Your task to perform on an android device: open app "Facebook Messenger" Image 0: 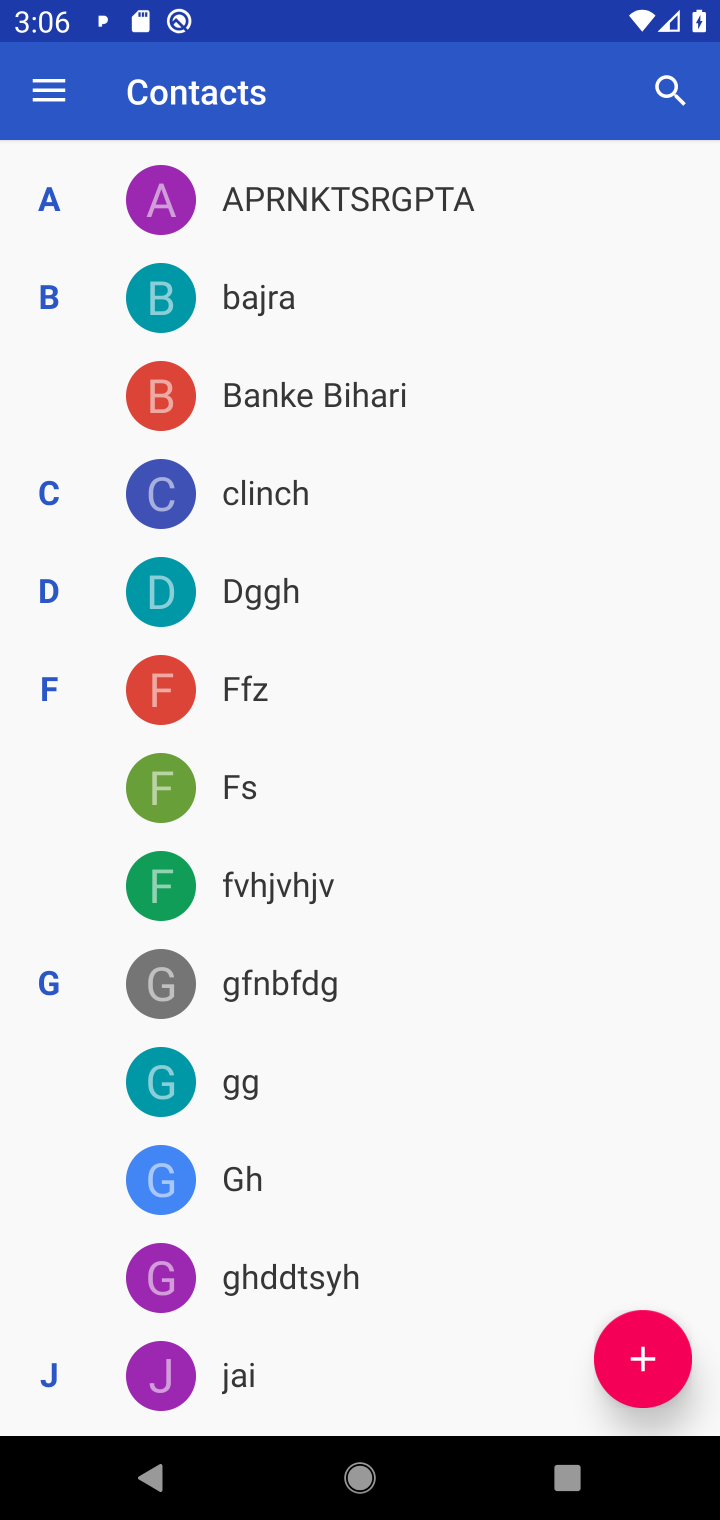
Step 0: press home button
Your task to perform on an android device: open app "Facebook Messenger" Image 1: 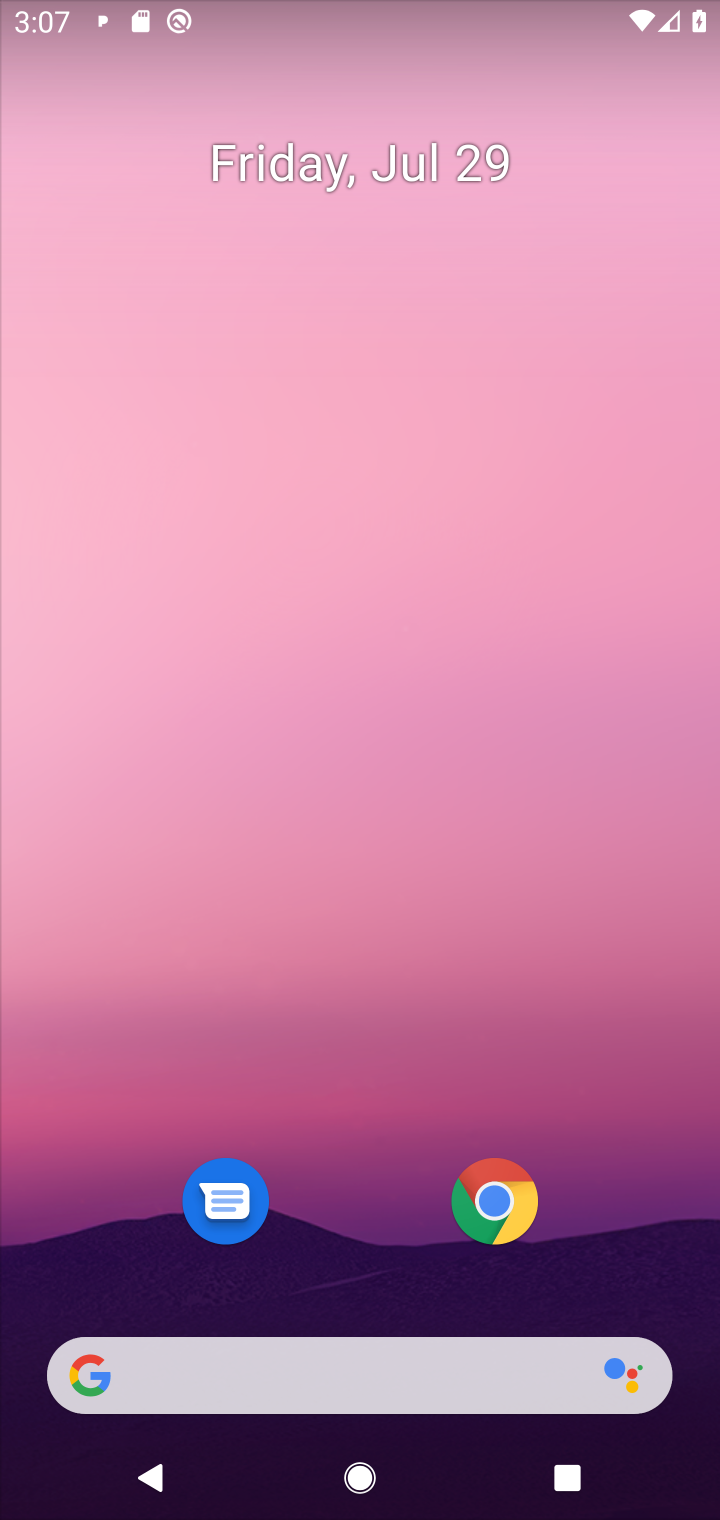
Step 1: click (676, 1298)
Your task to perform on an android device: open app "Facebook Messenger" Image 2: 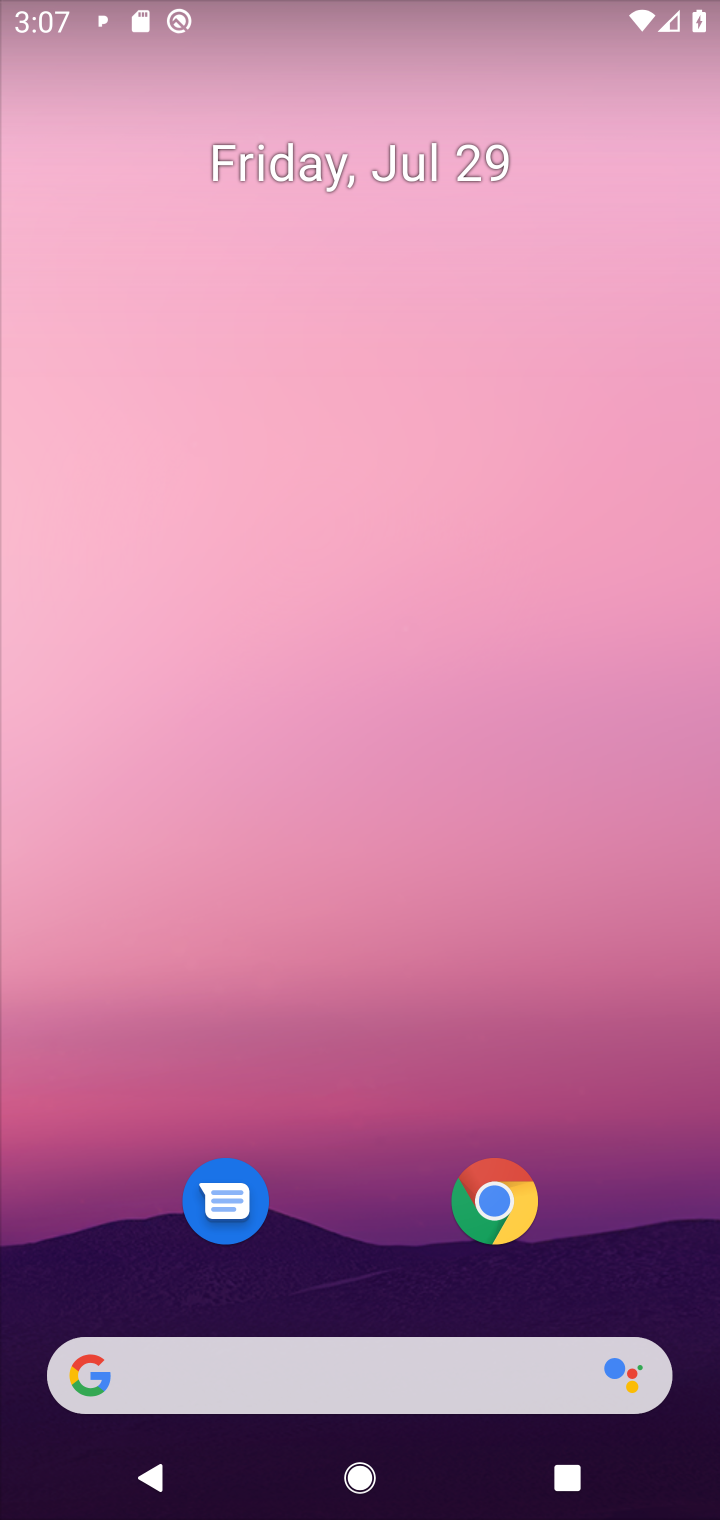
Step 2: click (581, 446)
Your task to perform on an android device: open app "Facebook Messenger" Image 3: 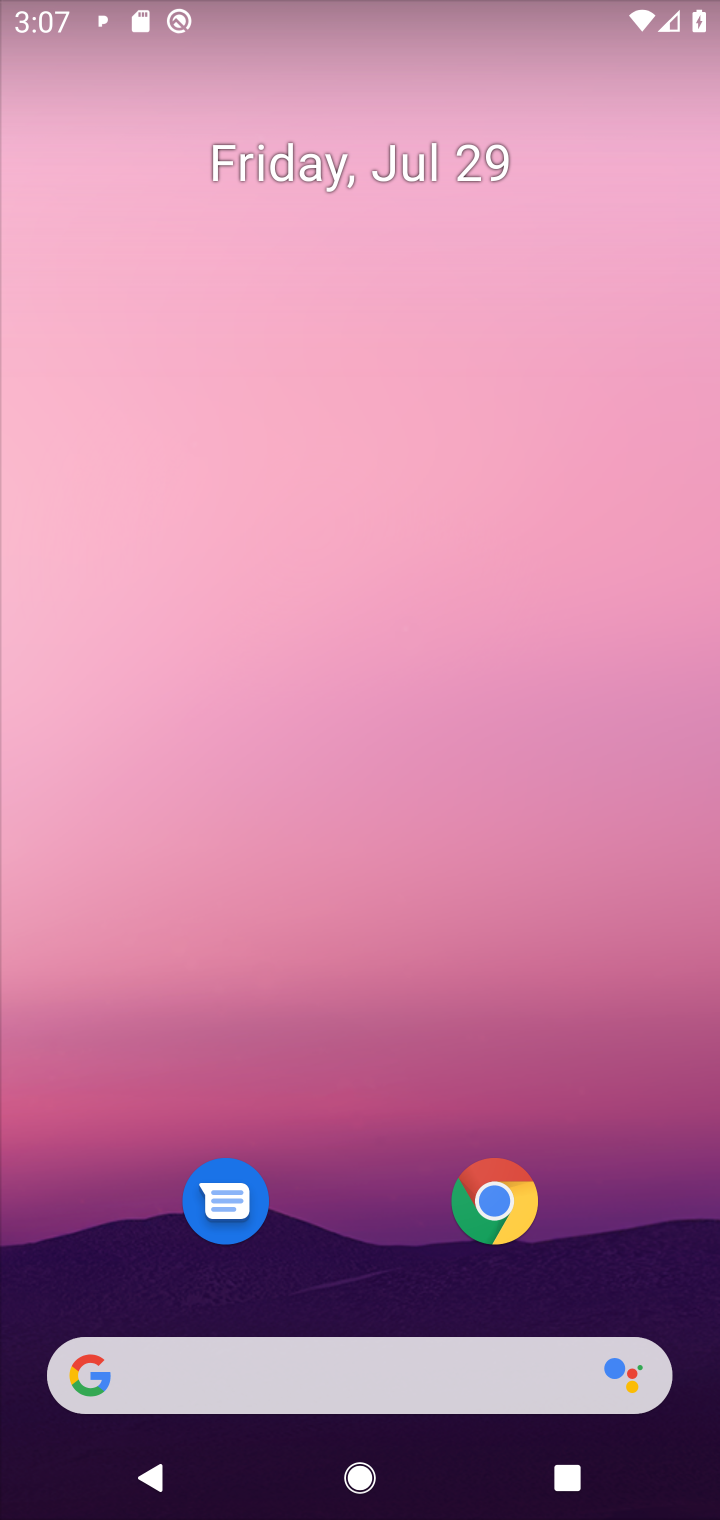
Step 3: drag from (623, 1176) to (522, 999)
Your task to perform on an android device: open app "Facebook Messenger" Image 4: 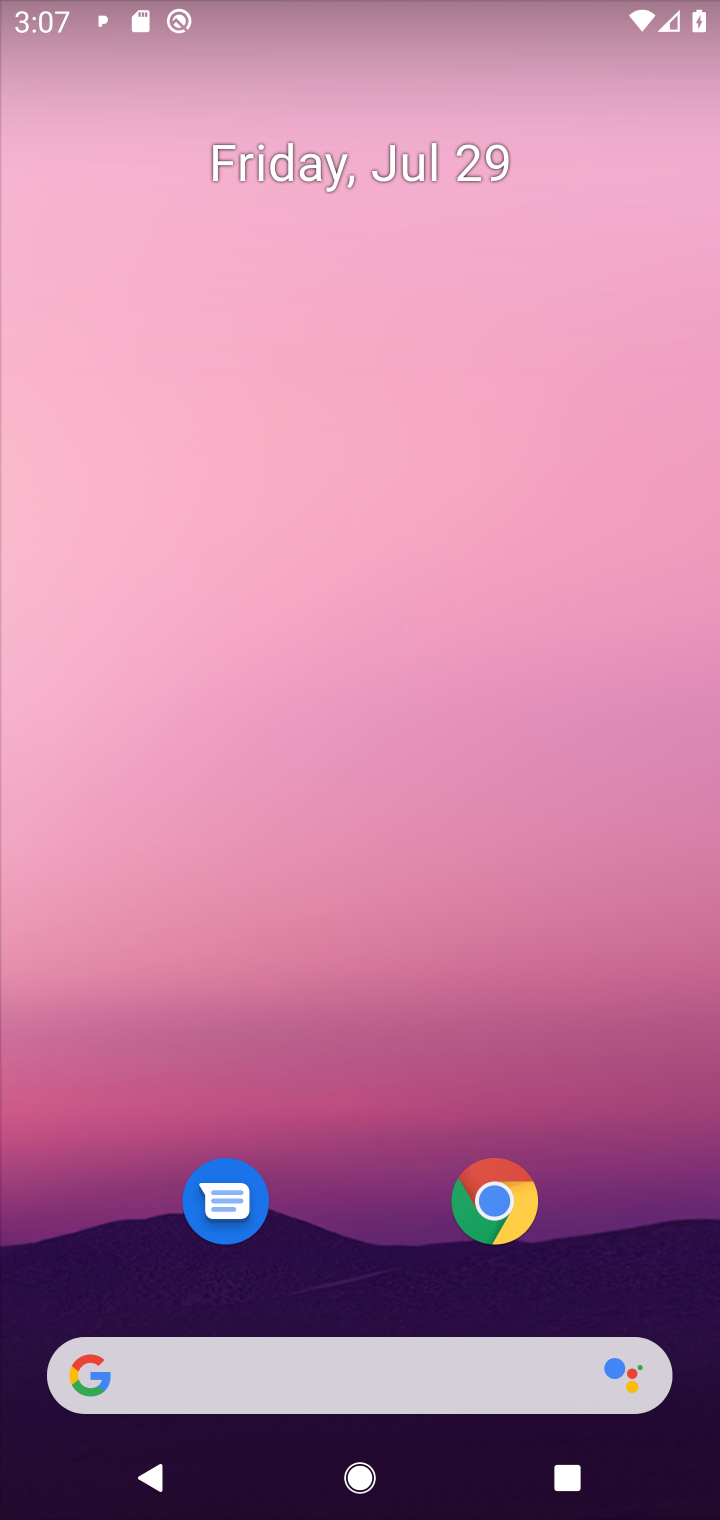
Step 4: drag from (400, 1185) to (265, 142)
Your task to perform on an android device: open app "Facebook Messenger" Image 5: 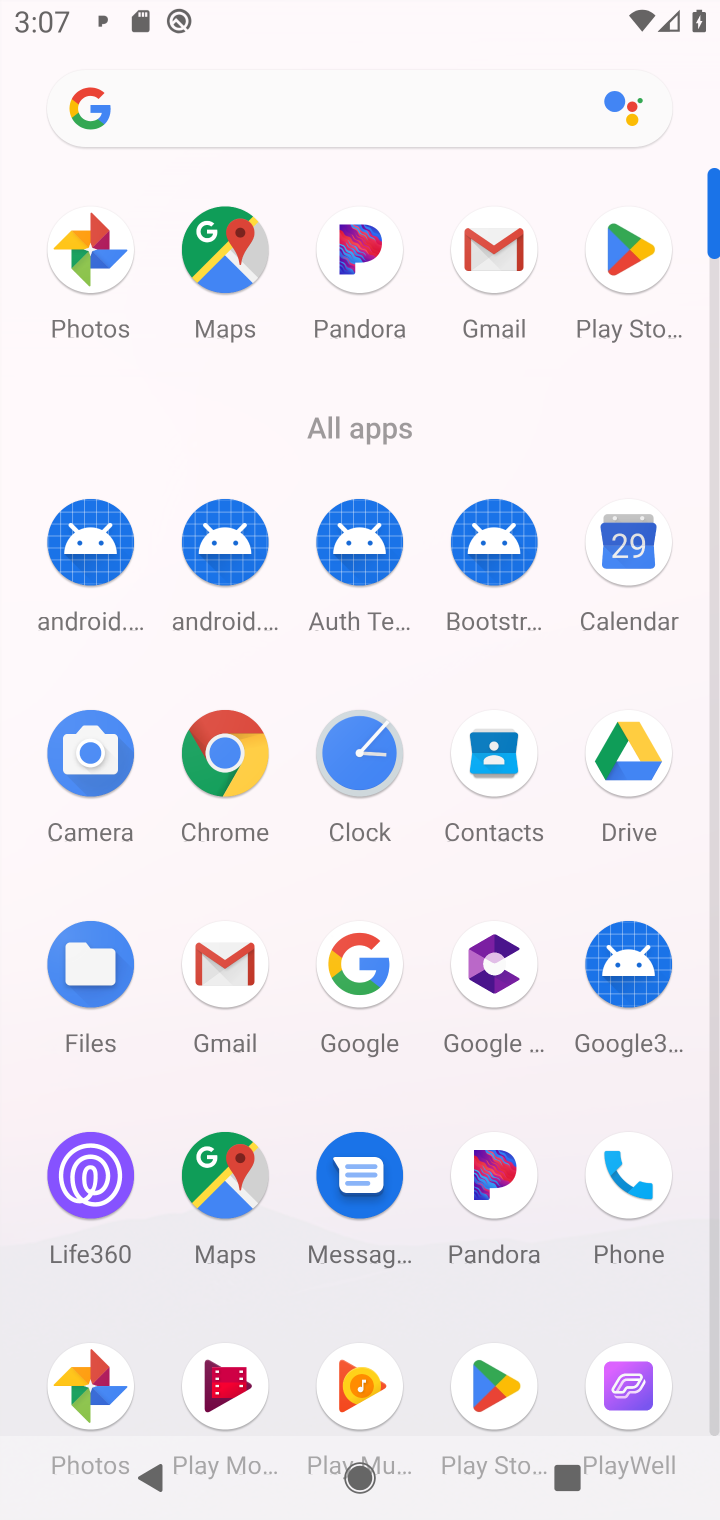
Step 5: click (306, 100)
Your task to perform on an android device: open app "Facebook Messenger" Image 6: 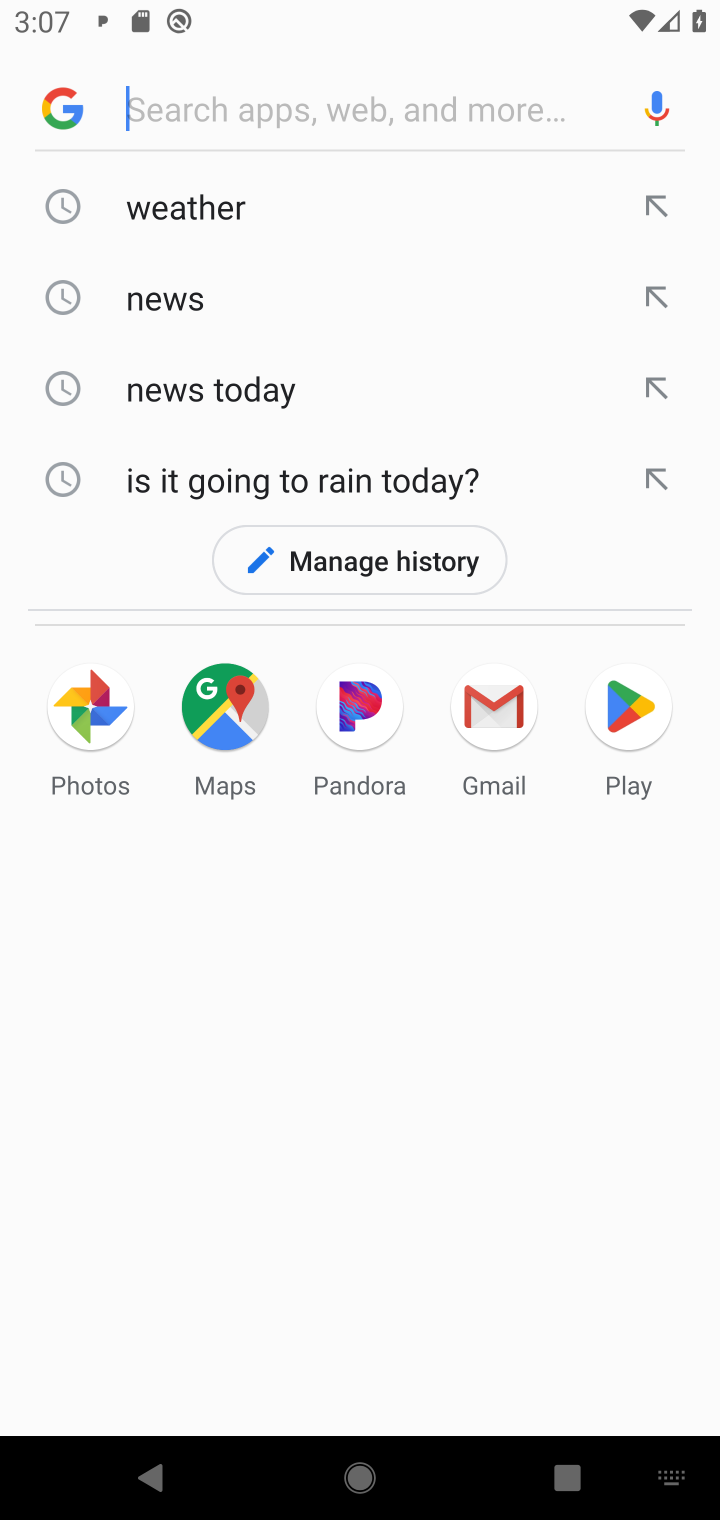
Step 6: type "Facebook Messenger"
Your task to perform on an android device: open app "Facebook Messenger" Image 7: 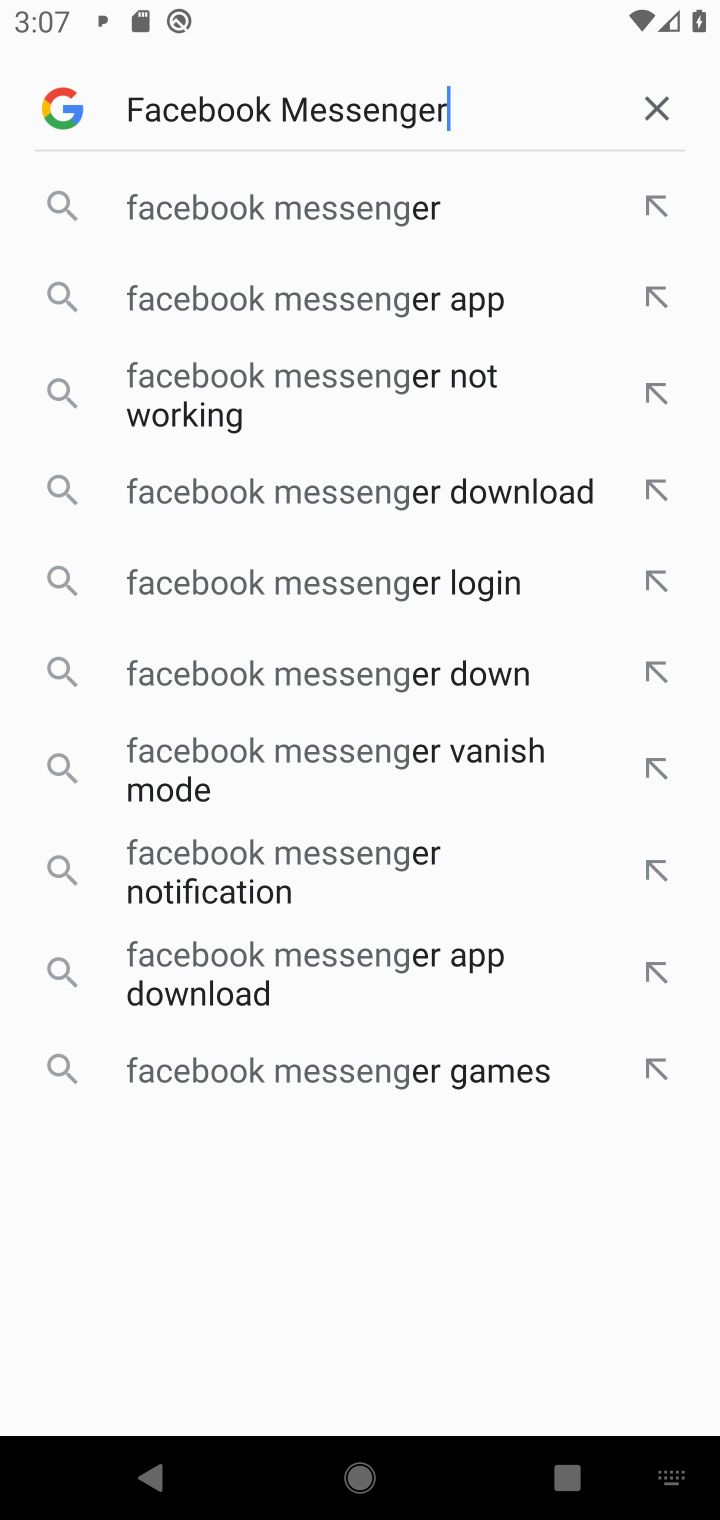
Step 7: press home button
Your task to perform on an android device: open app "Facebook Messenger" Image 8: 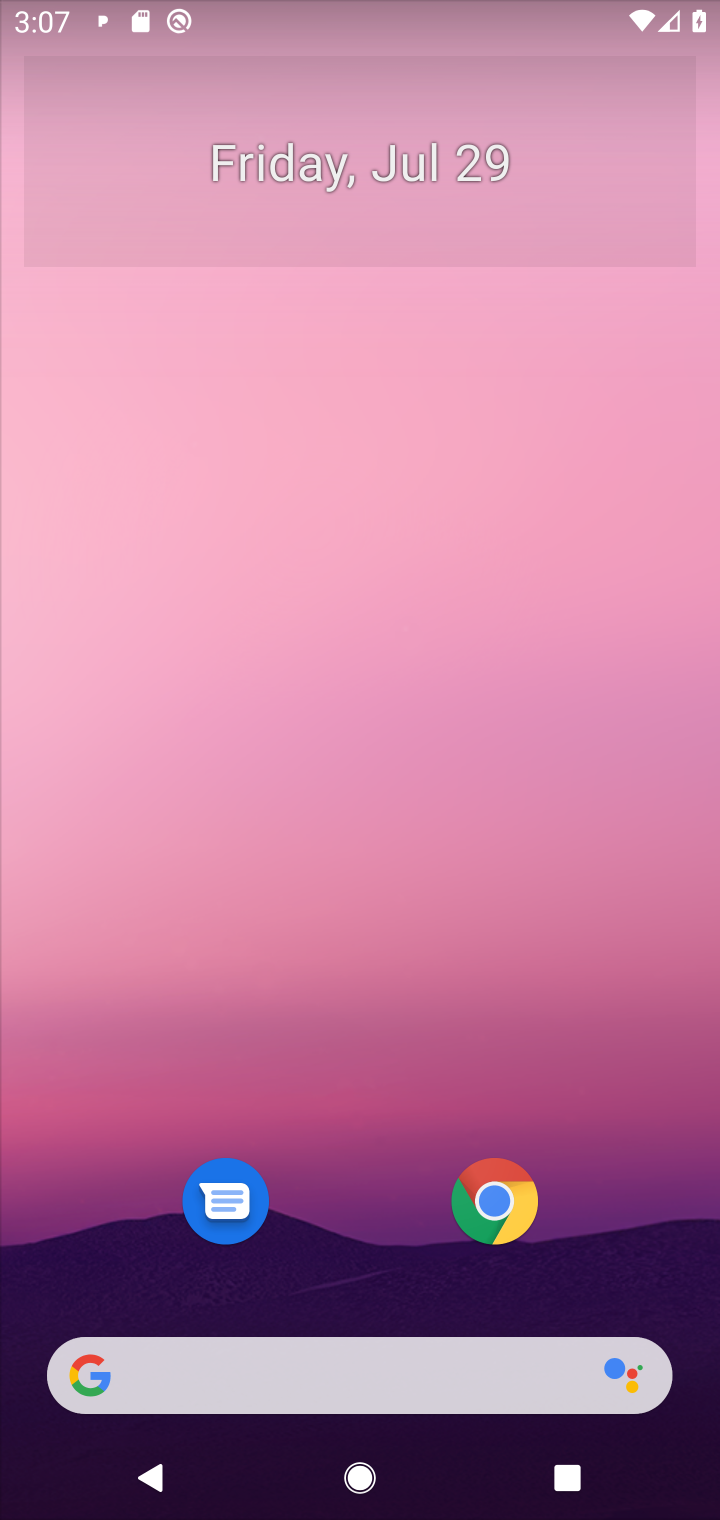
Step 8: drag from (708, 1440) to (222, 51)
Your task to perform on an android device: open app "Facebook Messenger" Image 9: 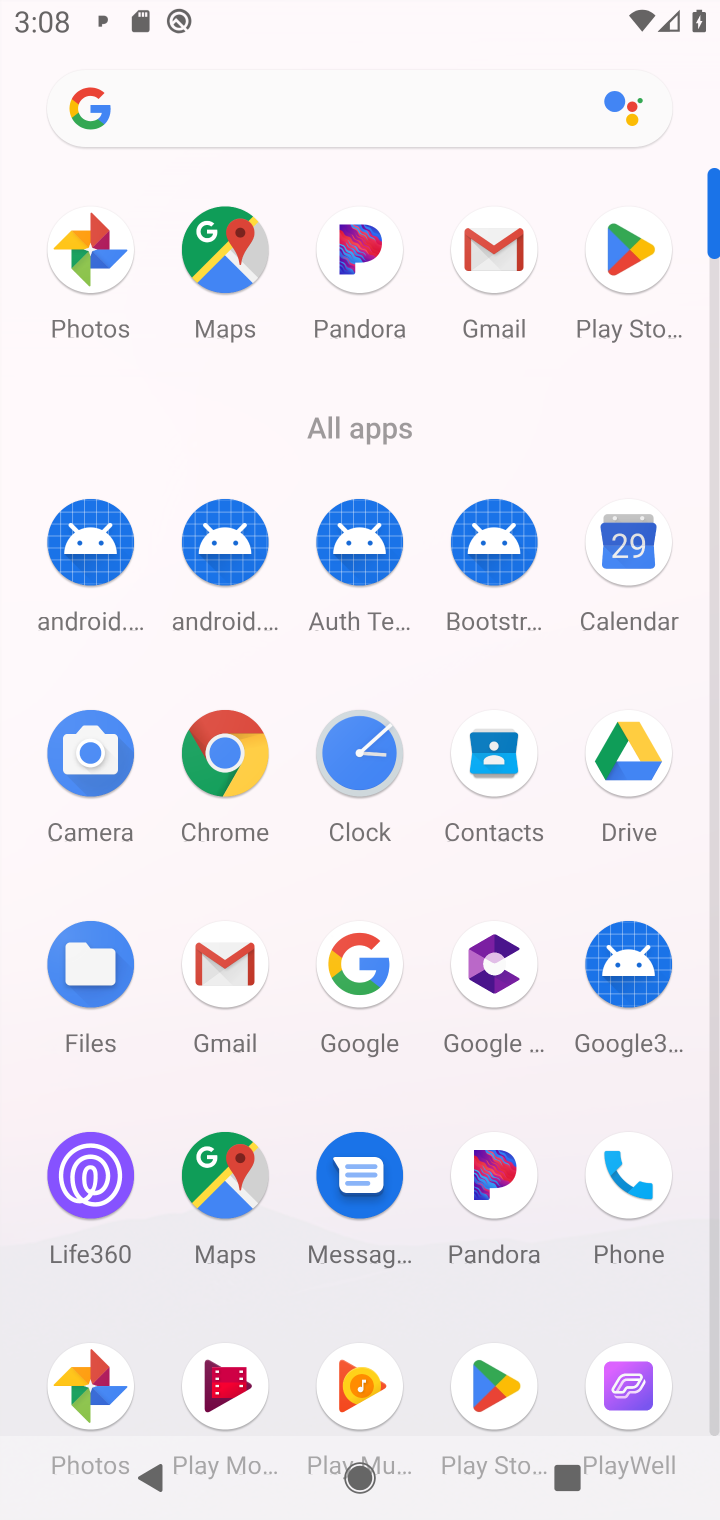
Step 9: click (641, 271)
Your task to perform on an android device: open app "Facebook Messenger" Image 10: 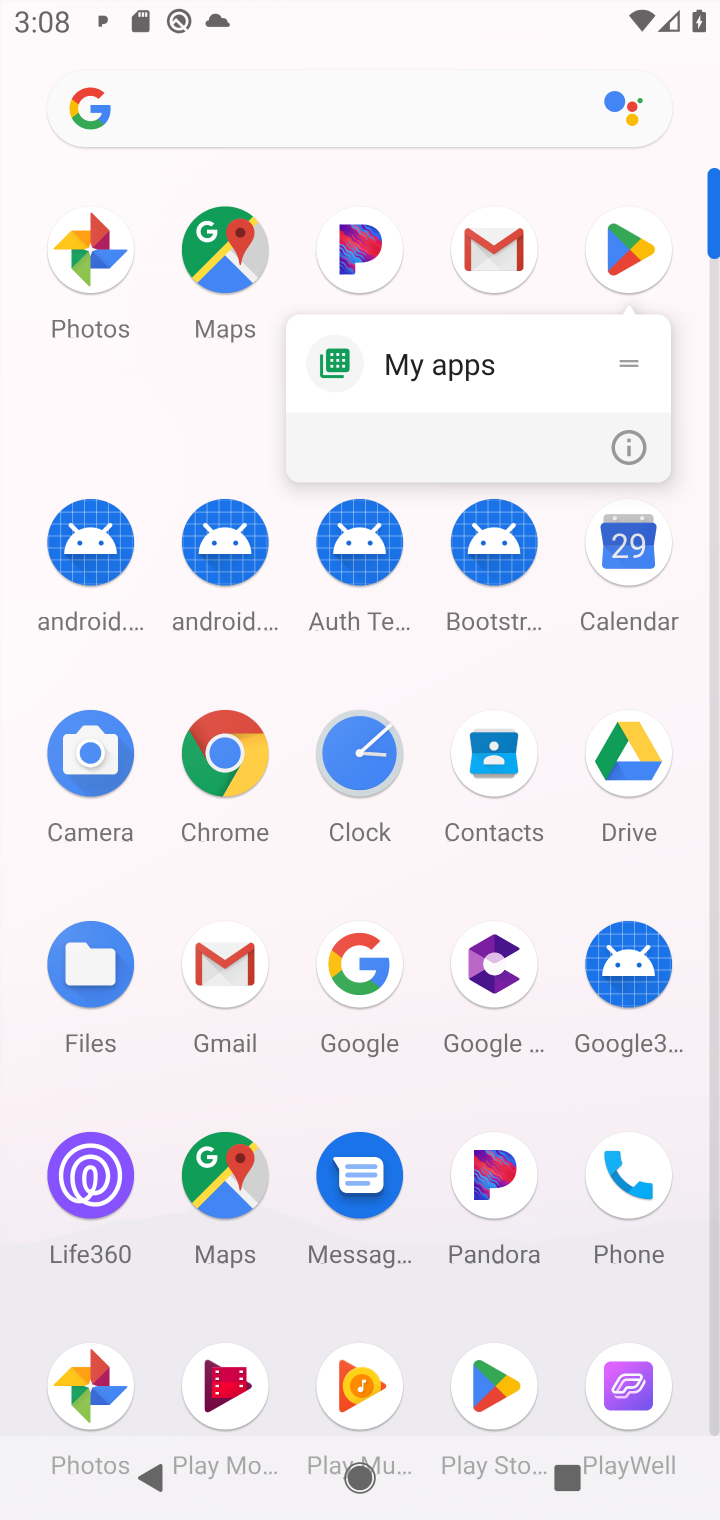
Step 10: click (635, 252)
Your task to perform on an android device: open app "Facebook Messenger" Image 11: 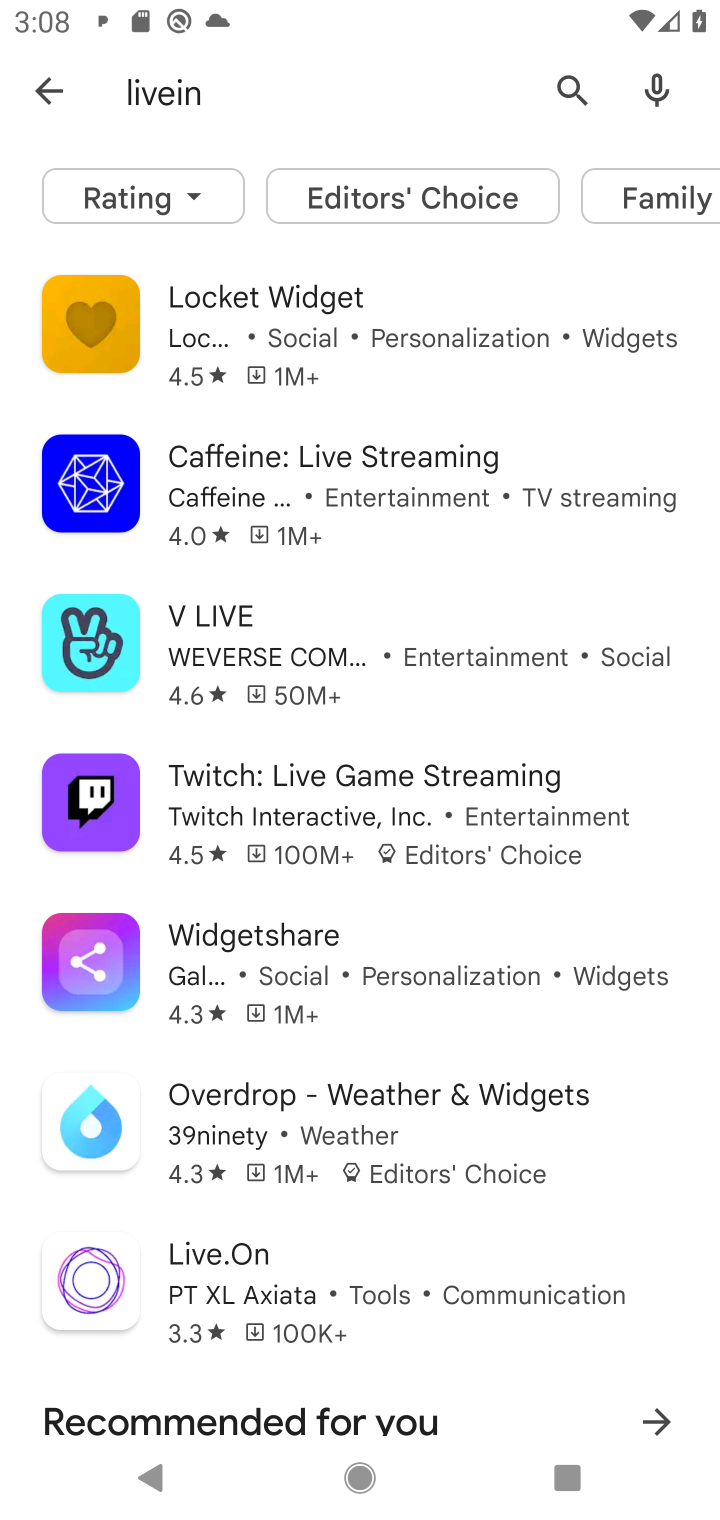
Step 11: click (558, 100)
Your task to perform on an android device: open app "Facebook Messenger" Image 12: 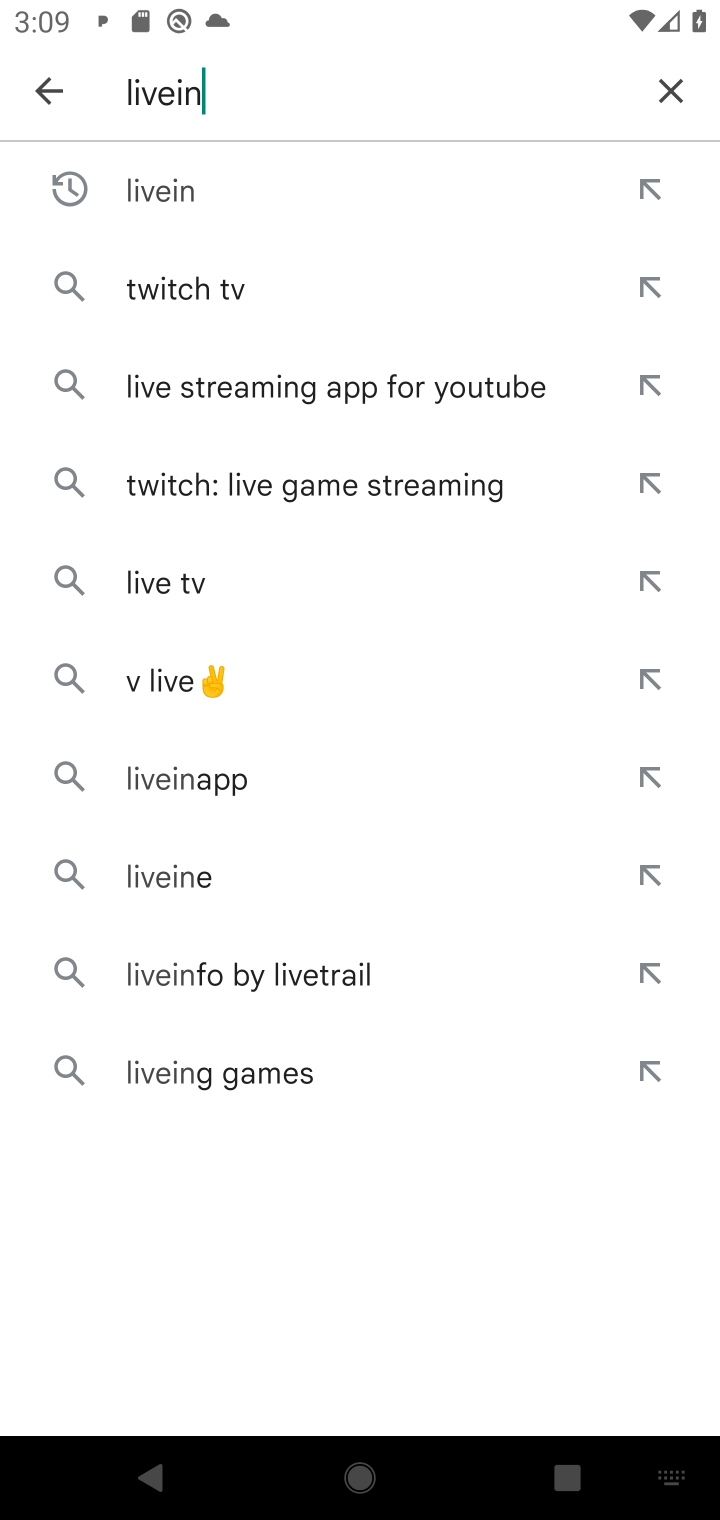
Step 12: click (155, 191)
Your task to perform on an android device: open app "Facebook Messenger" Image 13: 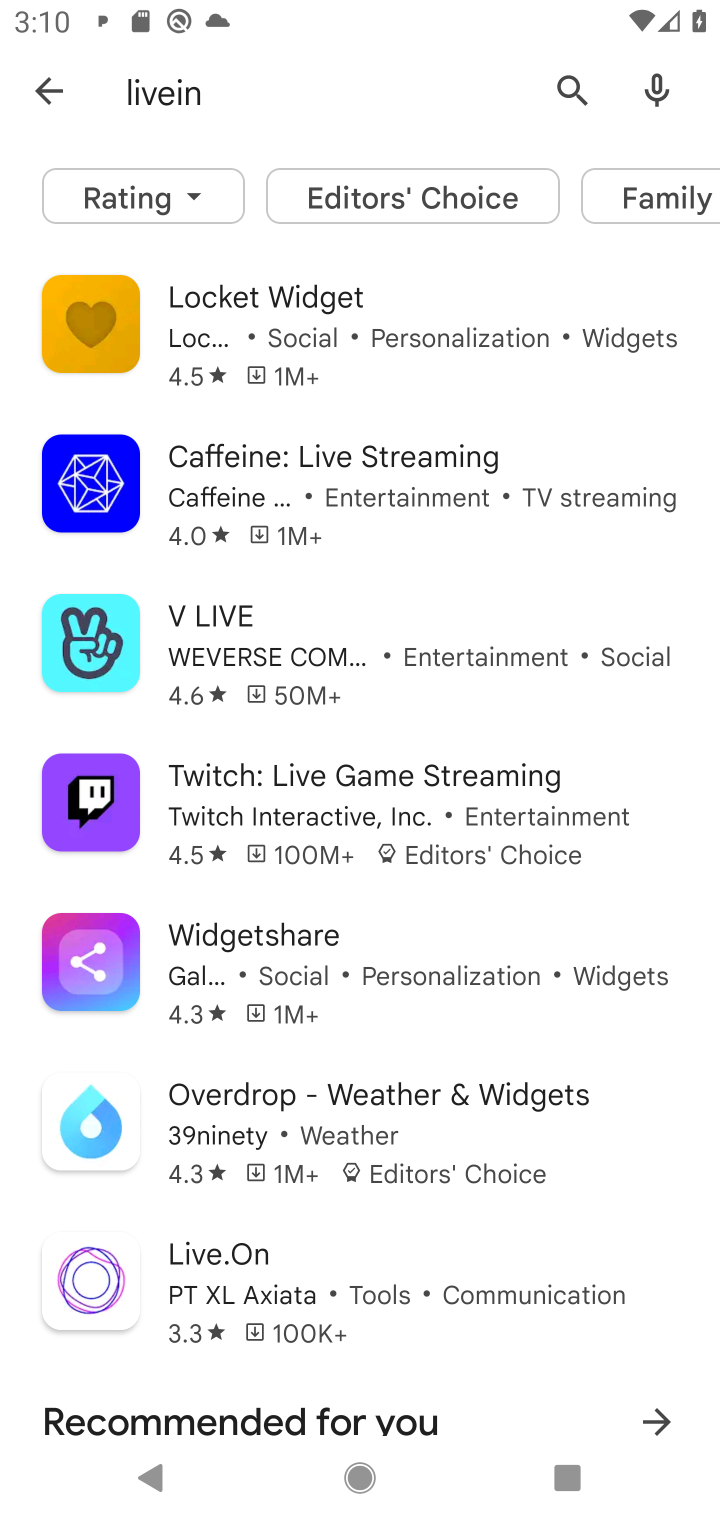
Step 13: click (562, 66)
Your task to perform on an android device: open app "Facebook Messenger" Image 14: 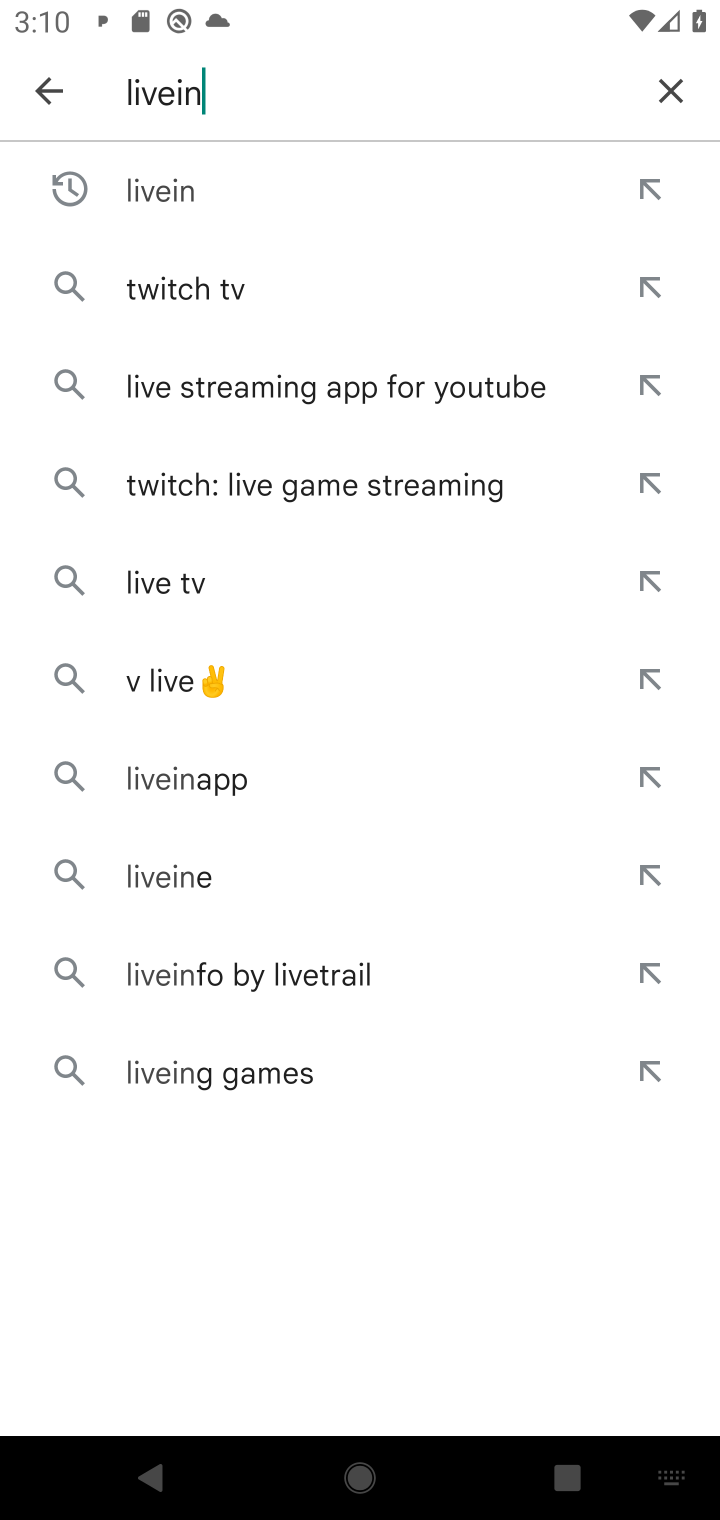
Step 14: click (693, 75)
Your task to perform on an android device: open app "Facebook Messenger" Image 15: 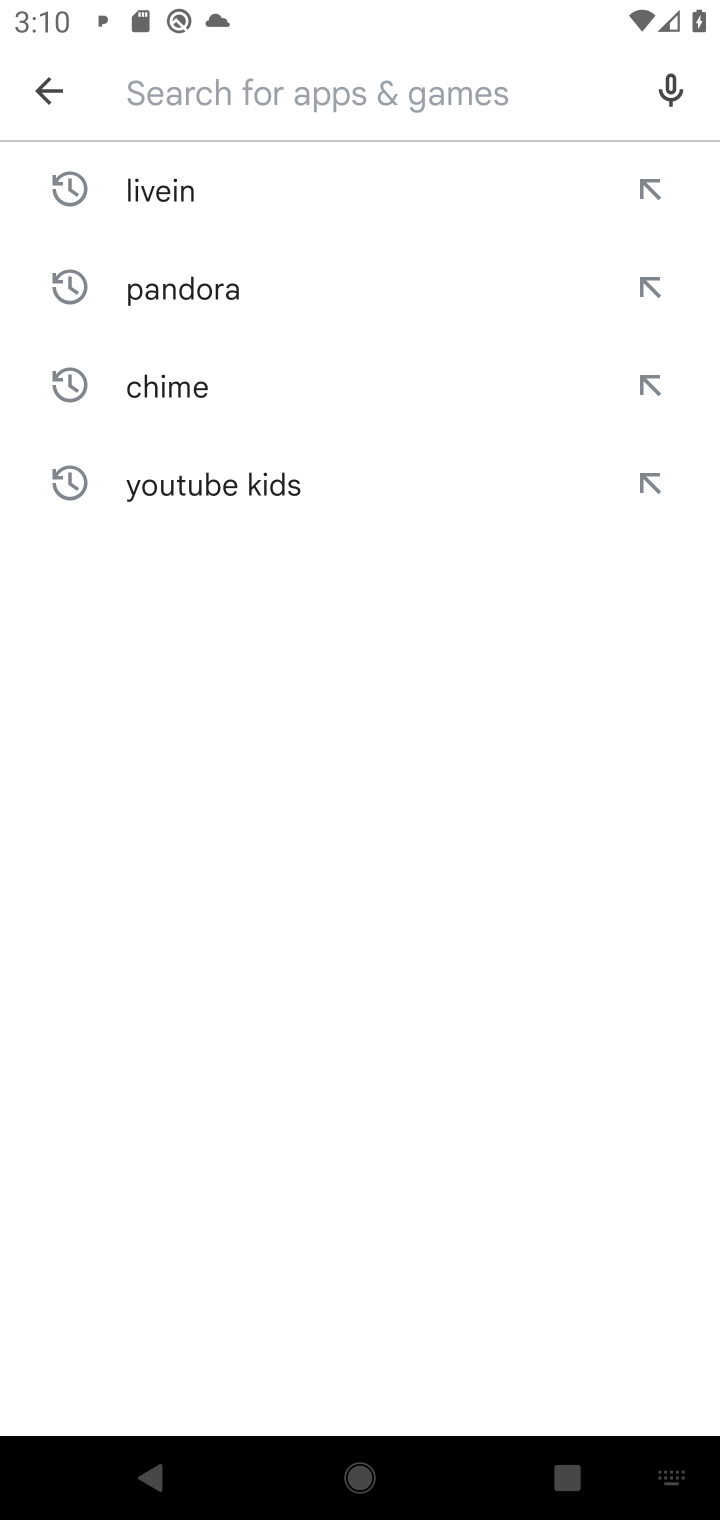
Step 15: click (660, 75)
Your task to perform on an android device: open app "Facebook Messenger" Image 16: 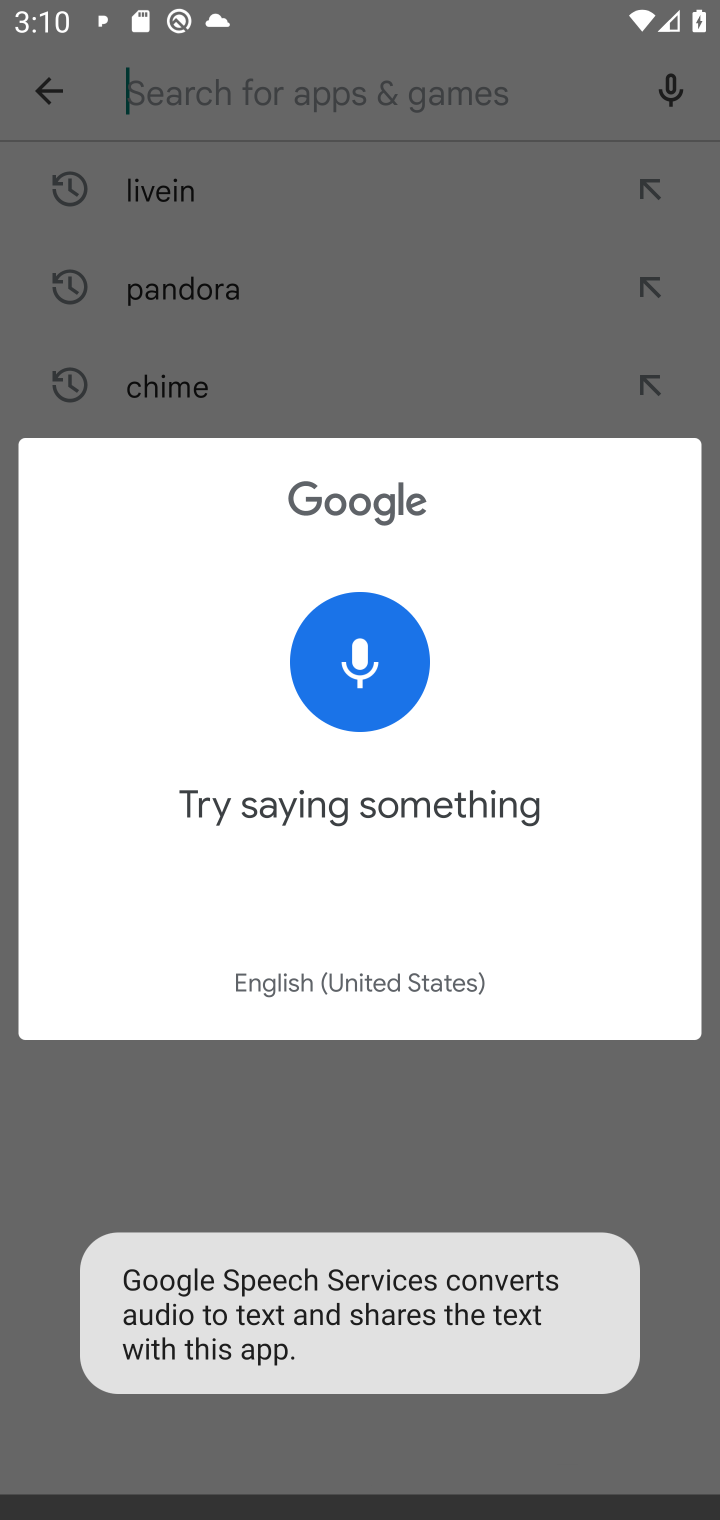
Step 16: click (378, 148)
Your task to perform on an android device: open app "Facebook Messenger" Image 17: 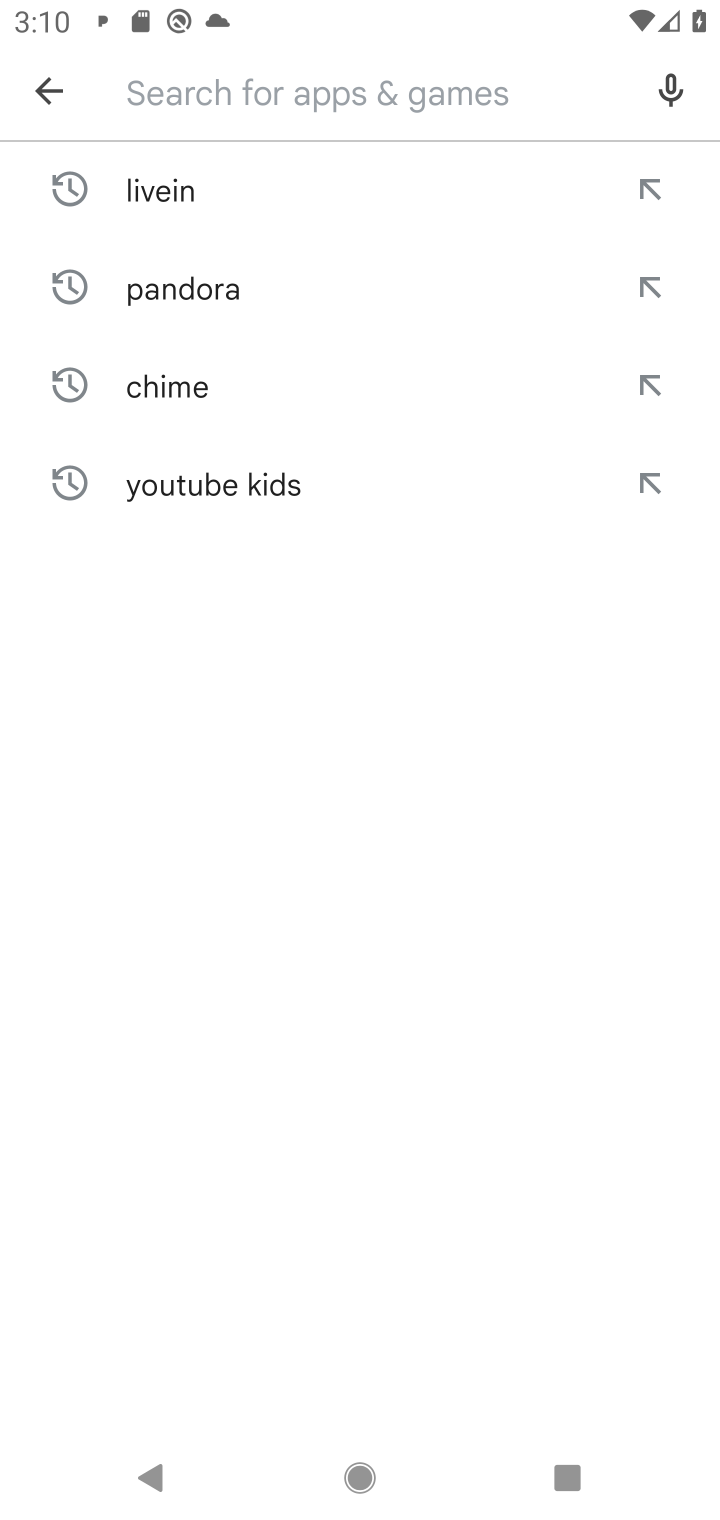
Step 17: click (283, 93)
Your task to perform on an android device: open app "Facebook Messenger" Image 18: 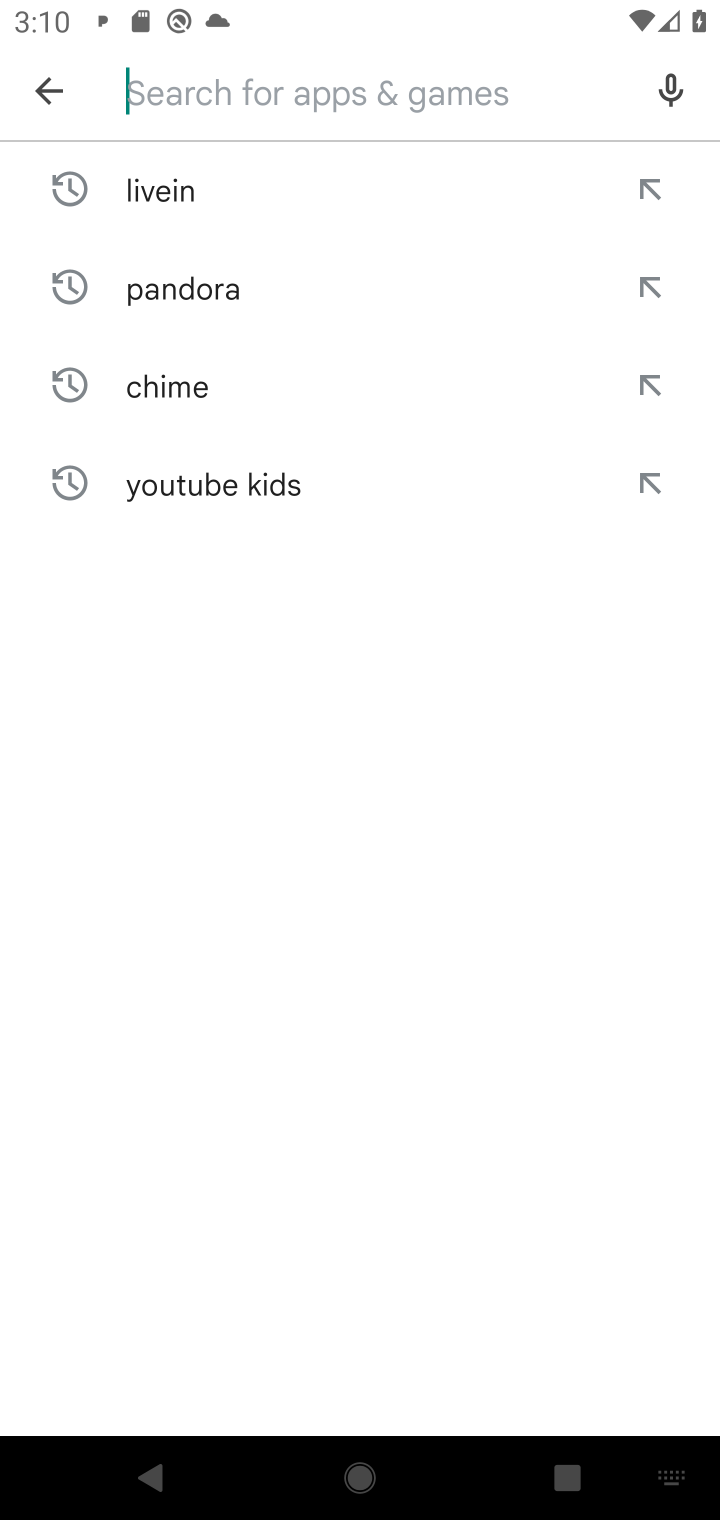
Step 18: type "Facebook messenger"
Your task to perform on an android device: open app "Facebook Messenger" Image 19: 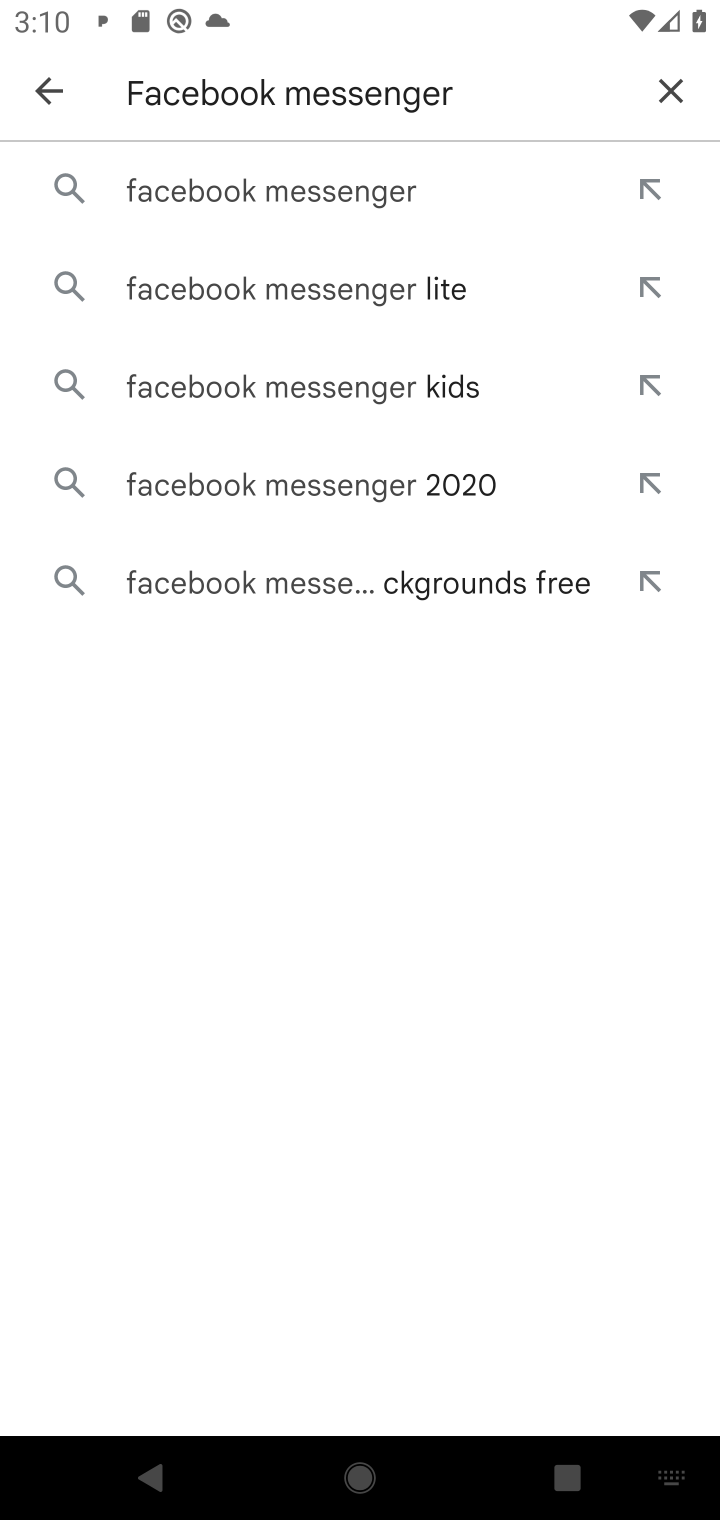
Step 19: click (379, 186)
Your task to perform on an android device: open app "Facebook Messenger" Image 20: 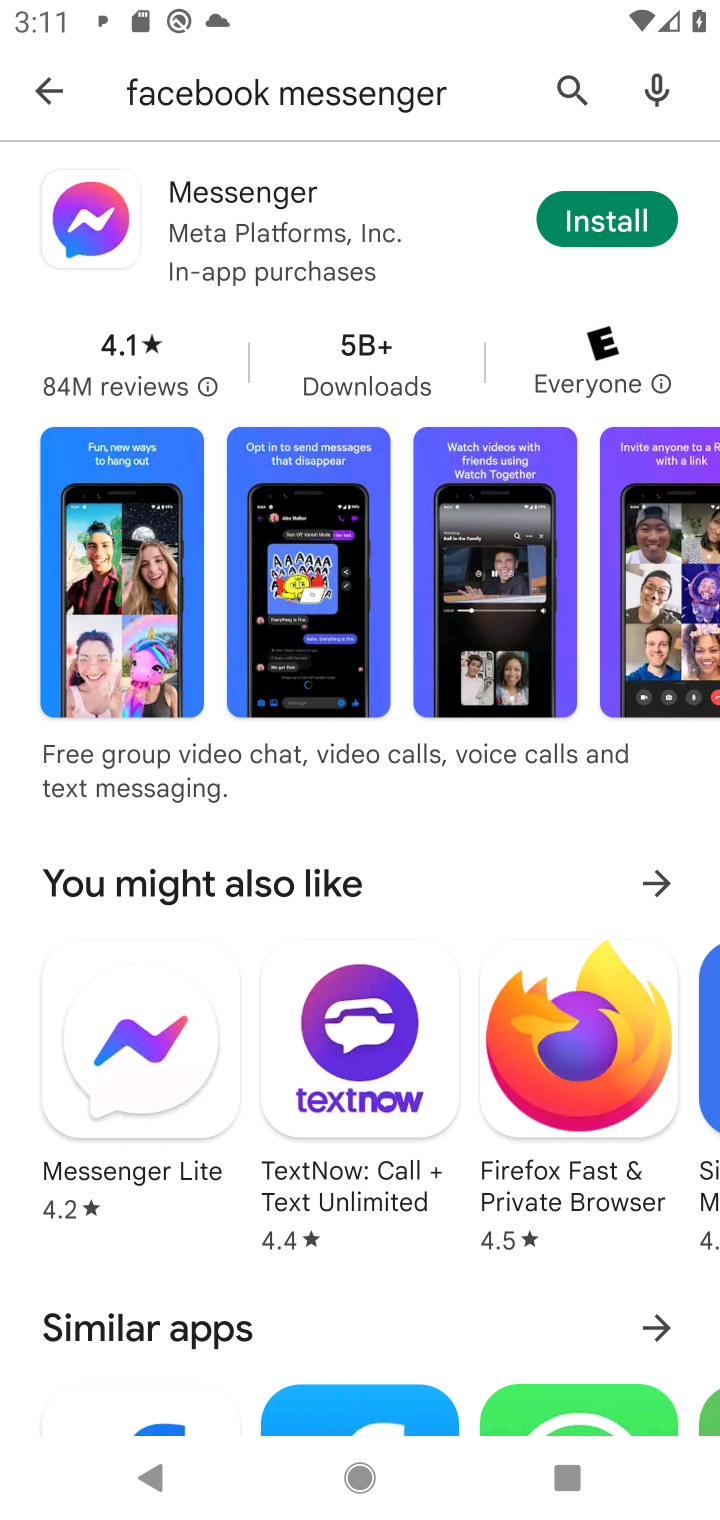
Step 20: task complete